Your task to perform on an android device: turn smart compose on in the gmail app Image 0: 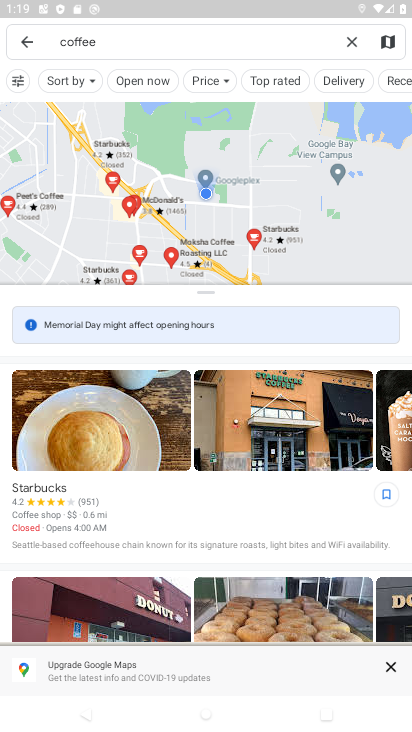
Step 0: press home button
Your task to perform on an android device: turn smart compose on in the gmail app Image 1: 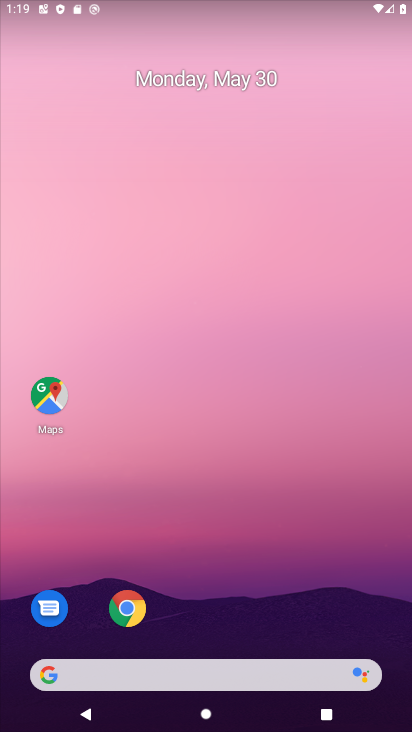
Step 1: drag from (203, 634) to (220, 237)
Your task to perform on an android device: turn smart compose on in the gmail app Image 2: 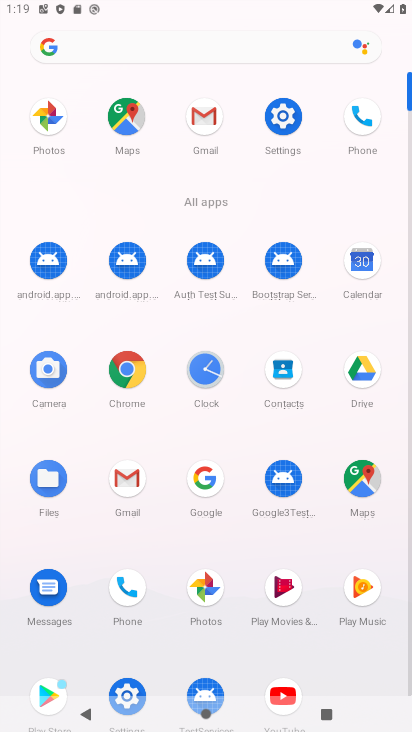
Step 2: click (128, 483)
Your task to perform on an android device: turn smart compose on in the gmail app Image 3: 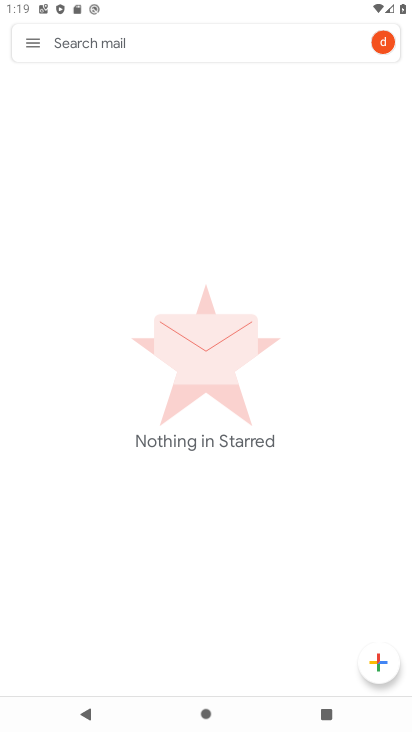
Step 3: click (32, 42)
Your task to perform on an android device: turn smart compose on in the gmail app Image 4: 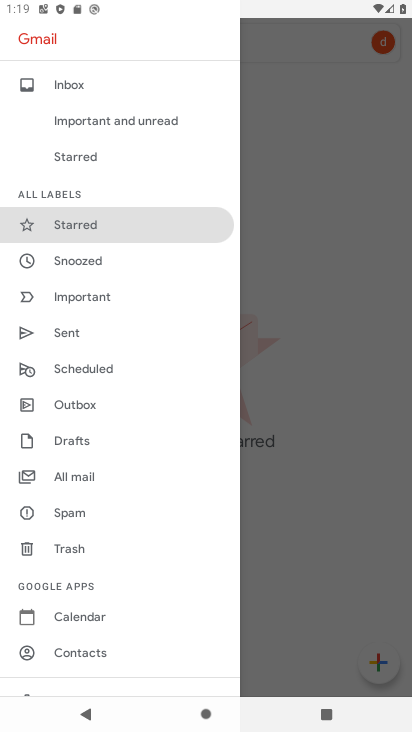
Step 4: drag from (80, 610) to (84, 352)
Your task to perform on an android device: turn smart compose on in the gmail app Image 5: 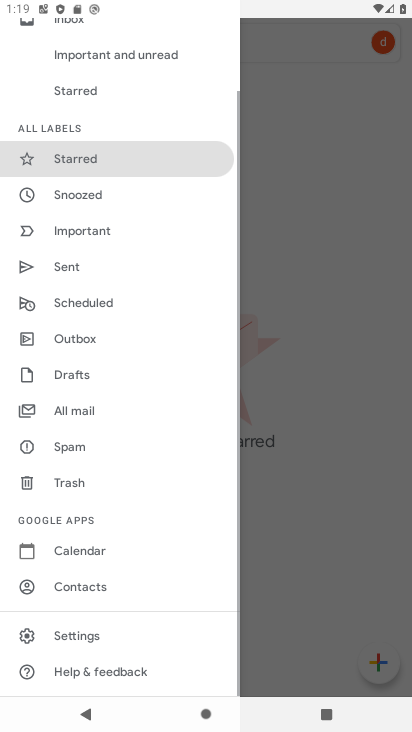
Step 5: click (74, 643)
Your task to perform on an android device: turn smart compose on in the gmail app Image 6: 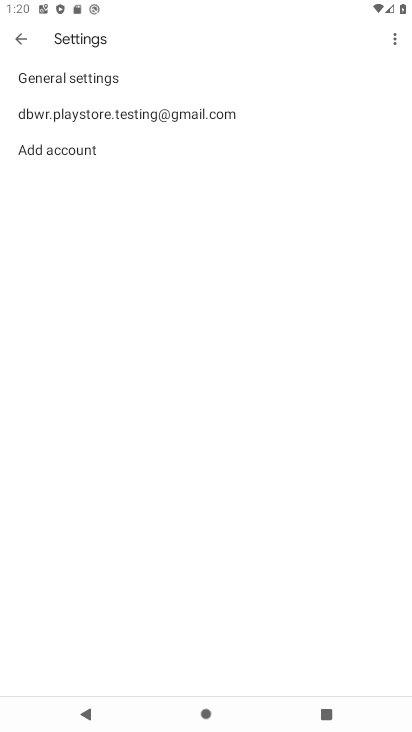
Step 6: click (155, 122)
Your task to perform on an android device: turn smart compose on in the gmail app Image 7: 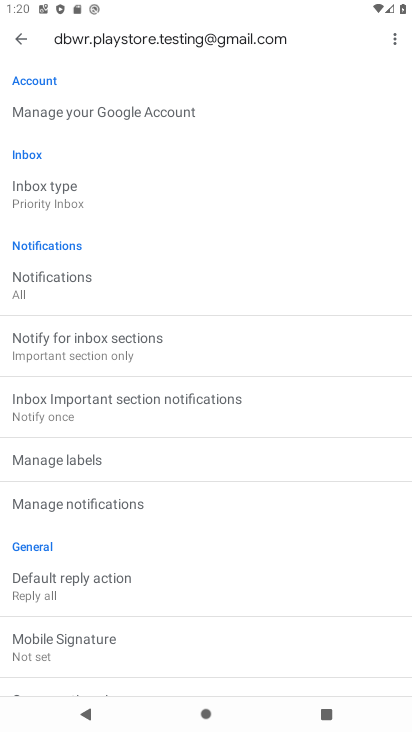
Step 7: task complete